Your task to perform on an android device: Open battery settings Image 0: 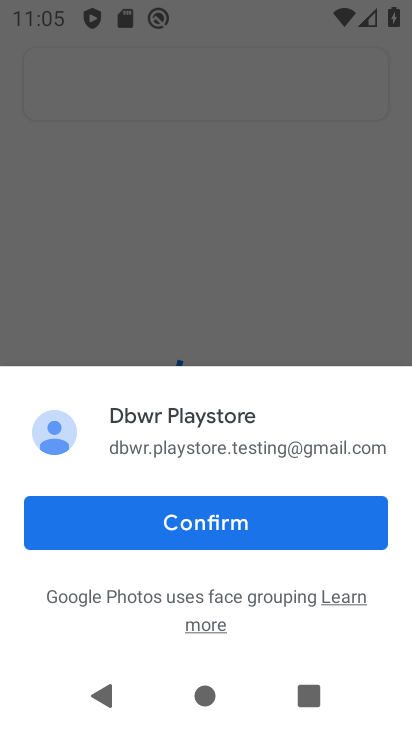
Step 0: press home button
Your task to perform on an android device: Open battery settings Image 1: 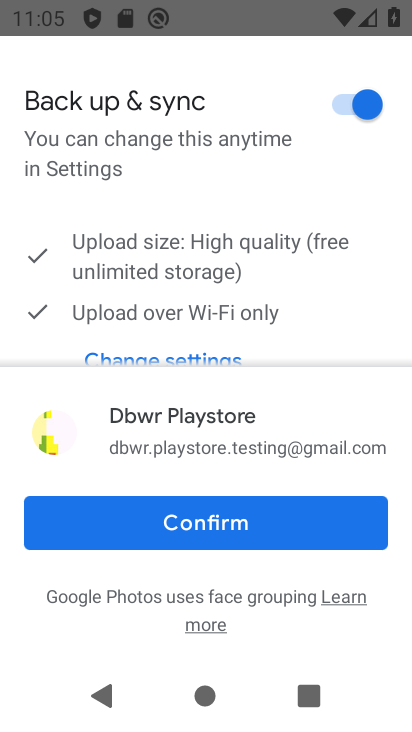
Step 1: drag from (317, 351) to (315, 109)
Your task to perform on an android device: Open battery settings Image 2: 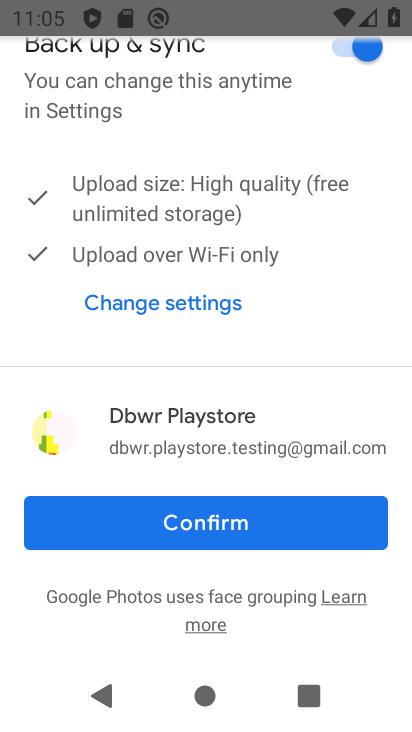
Step 2: press home button
Your task to perform on an android device: Open battery settings Image 3: 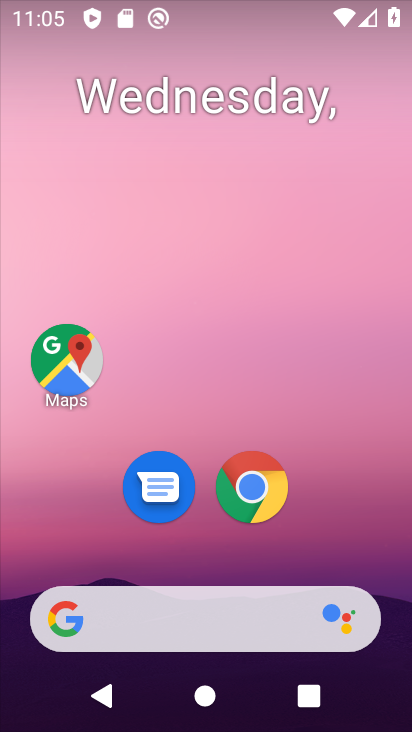
Step 3: drag from (249, 504) to (257, 98)
Your task to perform on an android device: Open battery settings Image 4: 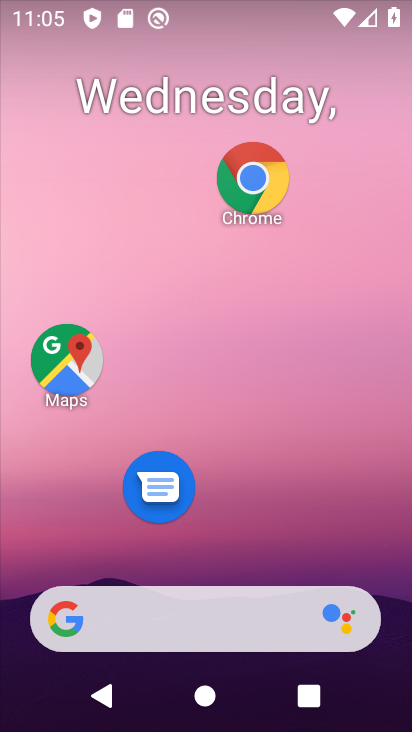
Step 4: drag from (311, 326) to (330, 53)
Your task to perform on an android device: Open battery settings Image 5: 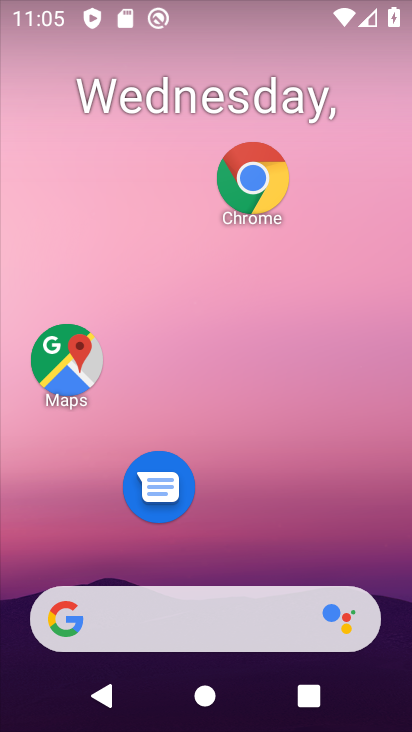
Step 5: drag from (307, 551) to (295, 39)
Your task to perform on an android device: Open battery settings Image 6: 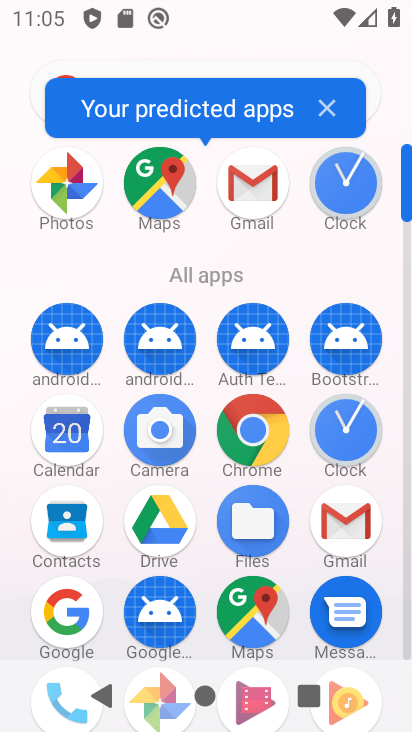
Step 6: drag from (292, 634) to (290, 249)
Your task to perform on an android device: Open battery settings Image 7: 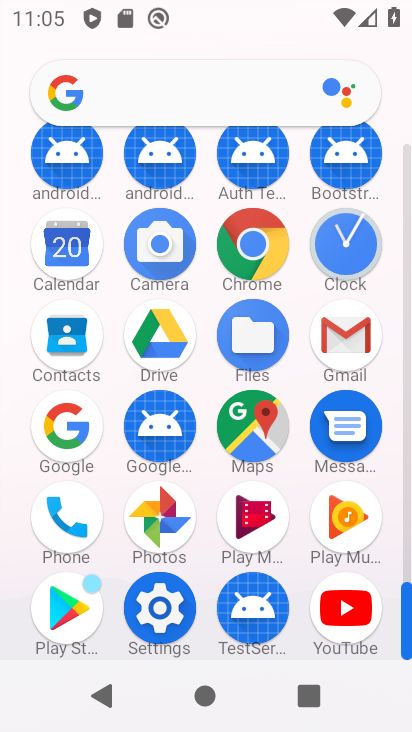
Step 7: click (169, 616)
Your task to perform on an android device: Open battery settings Image 8: 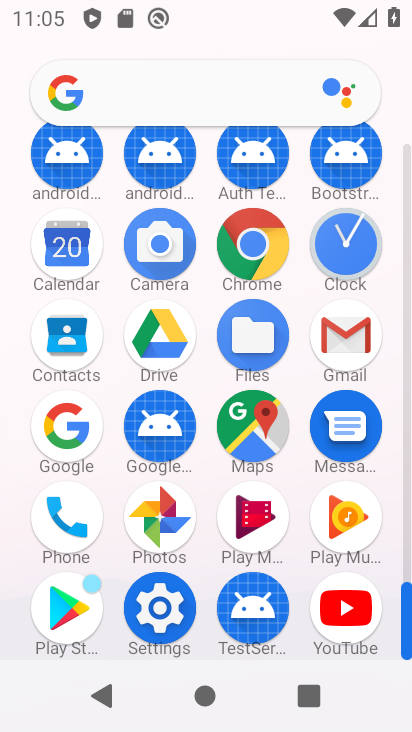
Step 8: click (155, 616)
Your task to perform on an android device: Open battery settings Image 9: 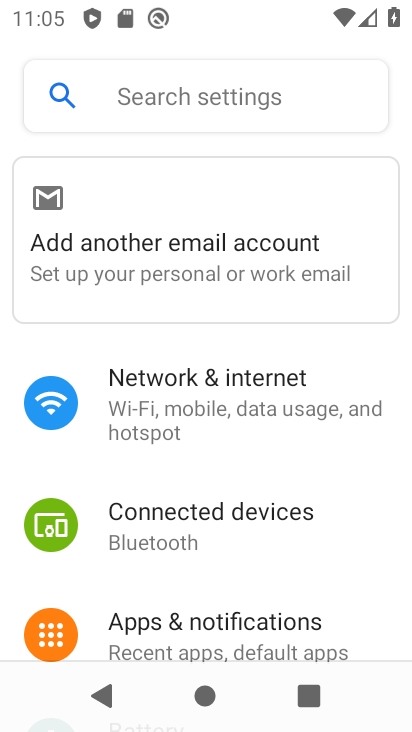
Step 9: drag from (258, 560) to (291, 257)
Your task to perform on an android device: Open battery settings Image 10: 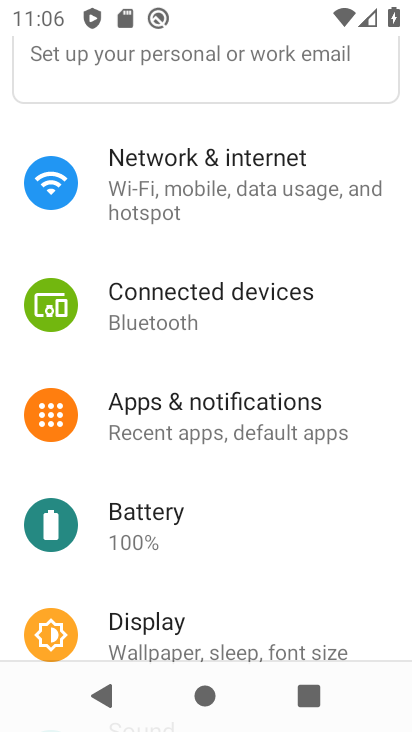
Step 10: click (175, 530)
Your task to perform on an android device: Open battery settings Image 11: 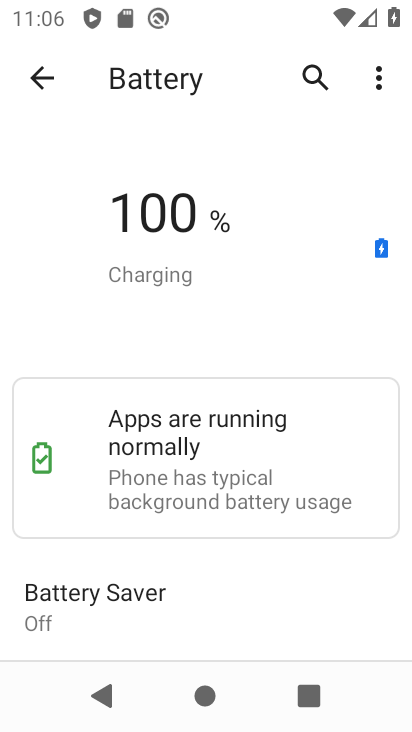
Step 11: task complete